Your task to perform on an android device: set an alarm Image 0: 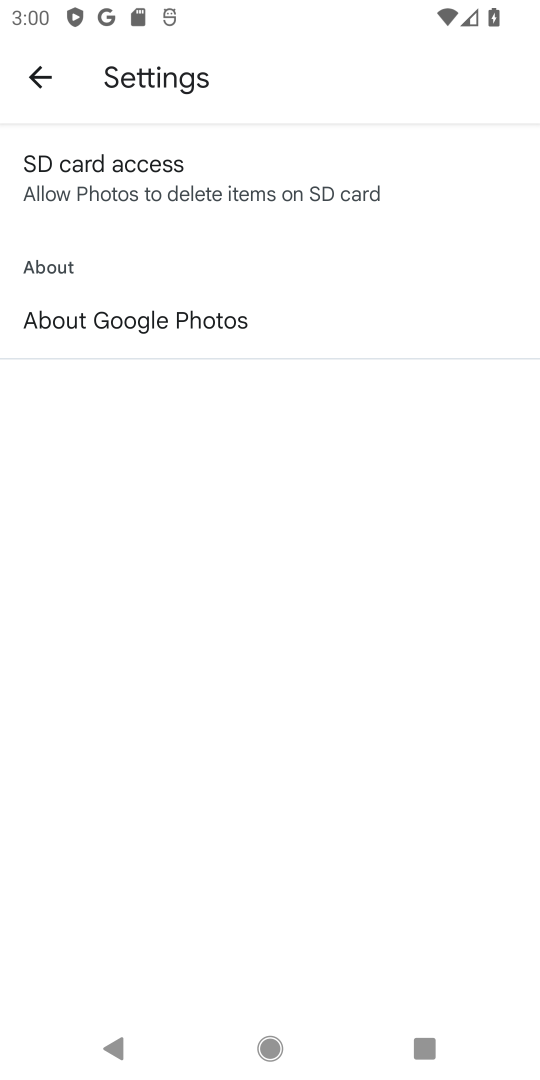
Step 0: press back button
Your task to perform on an android device: set an alarm Image 1: 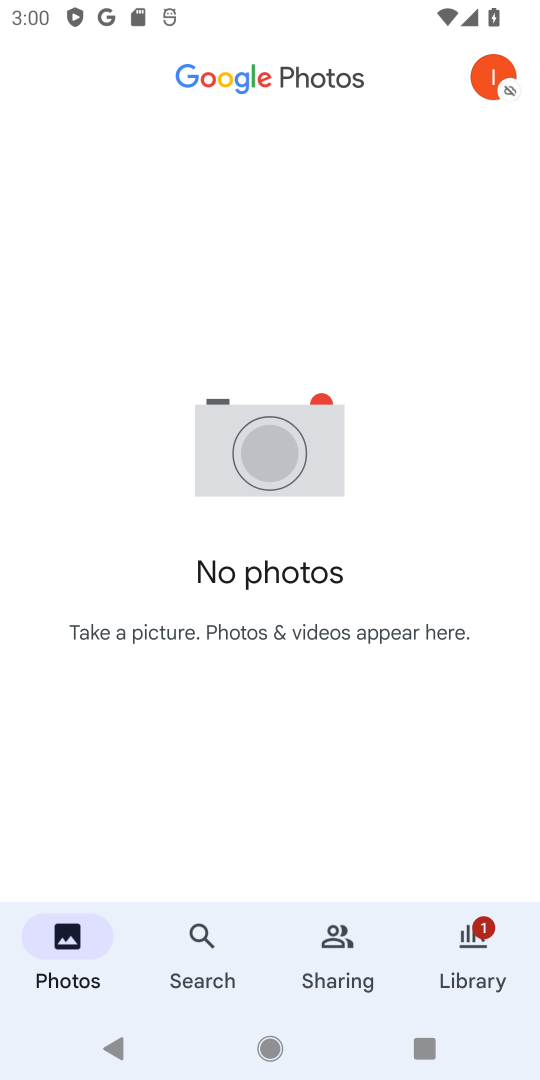
Step 1: press home button
Your task to perform on an android device: set an alarm Image 2: 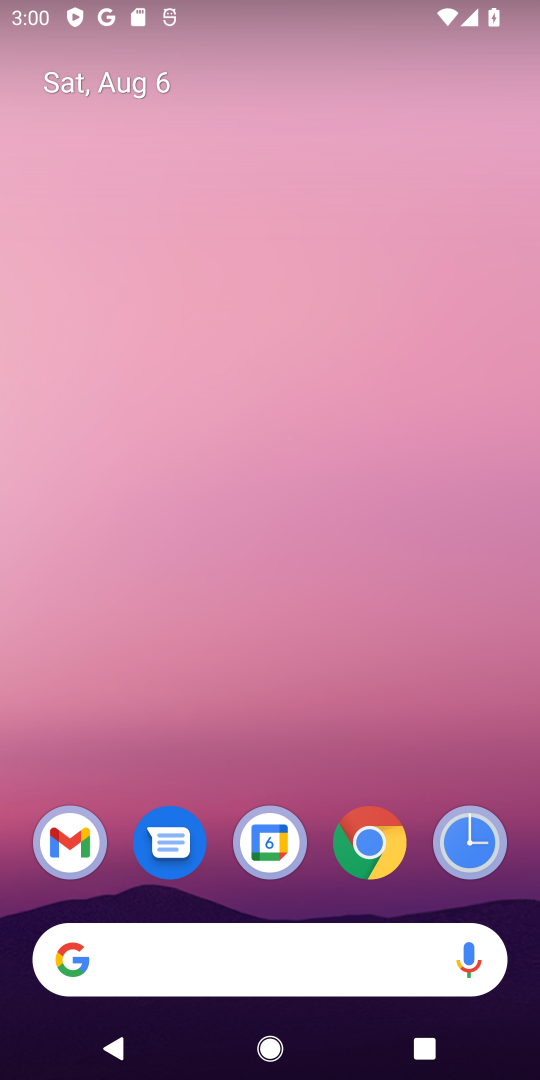
Step 2: click (479, 842)
Your task to perform on an android device: set an alarm Image 3: 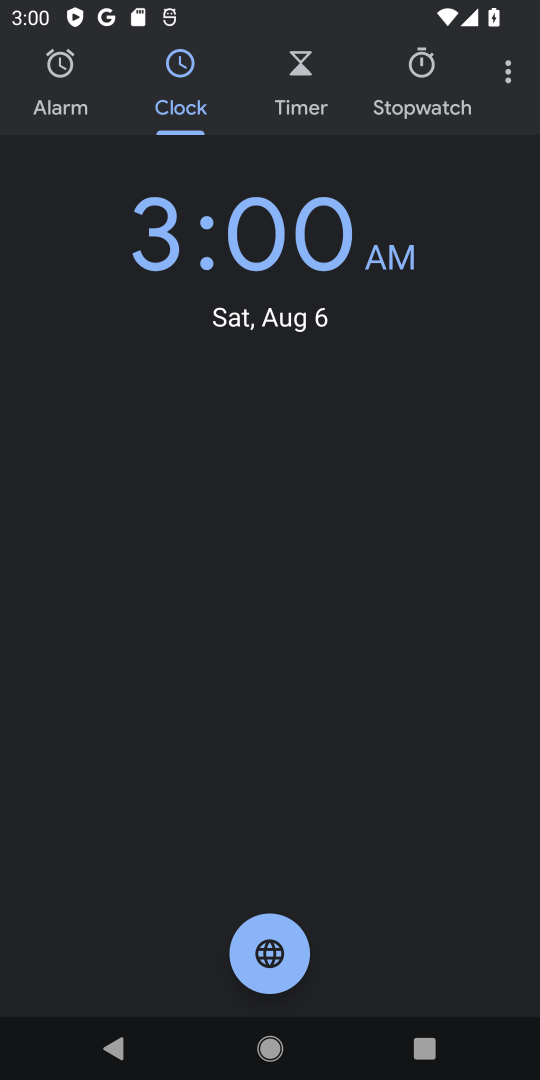
Step 3: click (64, 90)
Your task to perform on an android device: set an alarm Image 4: 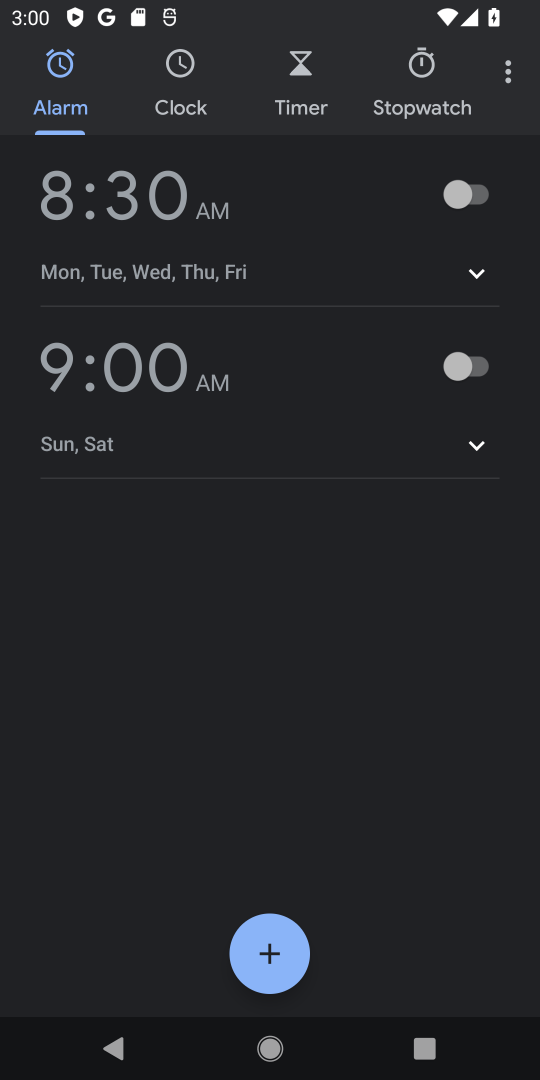
Step 4: click (470, 190)
Your task to perform on an android device: set an alarm Image 5: 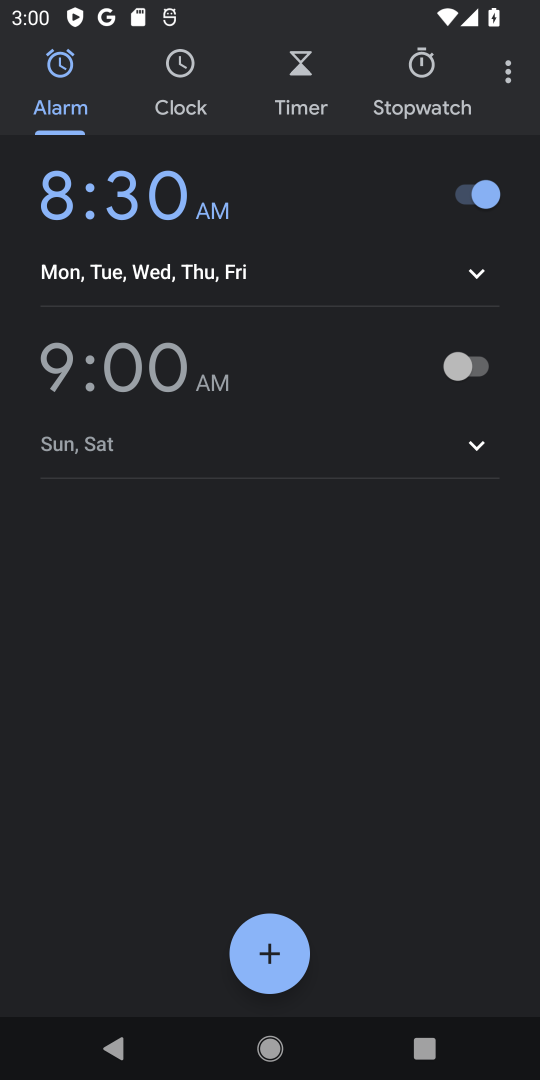
Step 5: task complete